Your task to perform on an android device: Go to wifi settings Image 0: 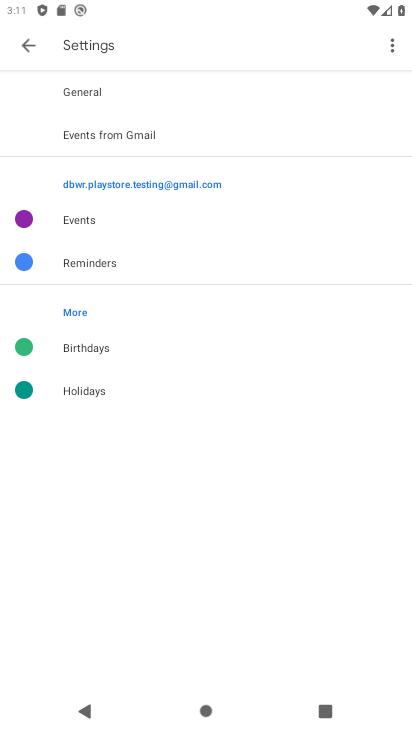
Step 0: press home button
Your task to perform on an android device: Go to wifi settings Image 1: 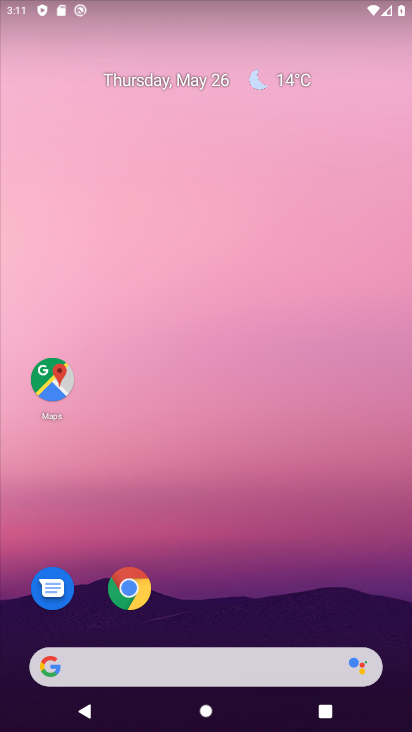
Step 1: drag from (287, 592) to (315, 153)
Your task to perform on an android device: Go to wifi settings Image 2: 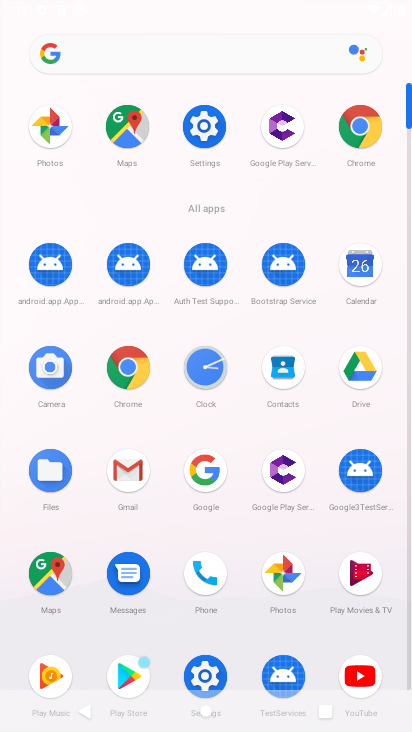
Step 2: click (215, 137)
Your task to perform on an android device: Go to wifi settings Image 3: 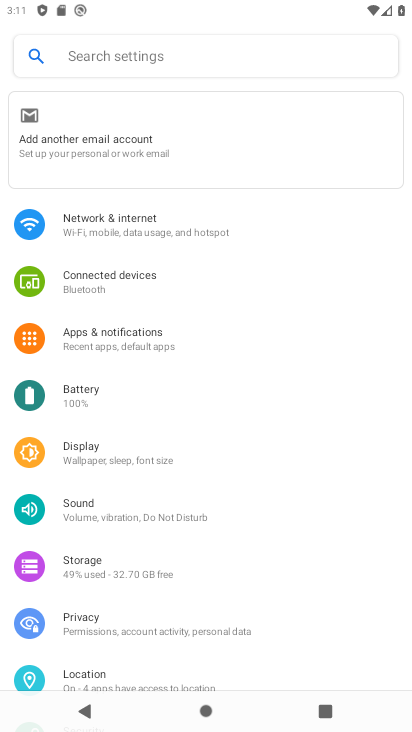
Step 3: click (223, 237)
Your task to perform on an android device: Go to wifi settings Image 4: 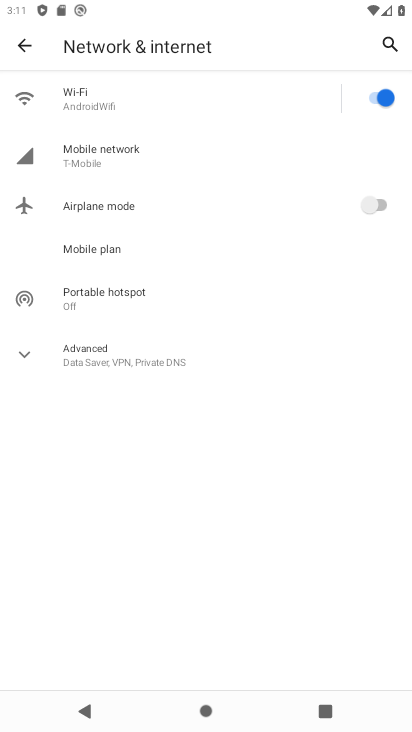
Step 4: click (165, 99)
Your task to perform on an android device: Go to wifi settings Image 5: 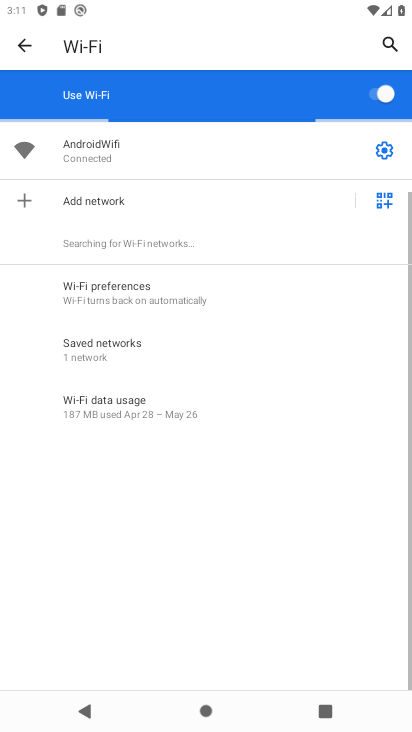
Step 5: task complete